Your task to perform on an android device: Open my contact list Image 0: 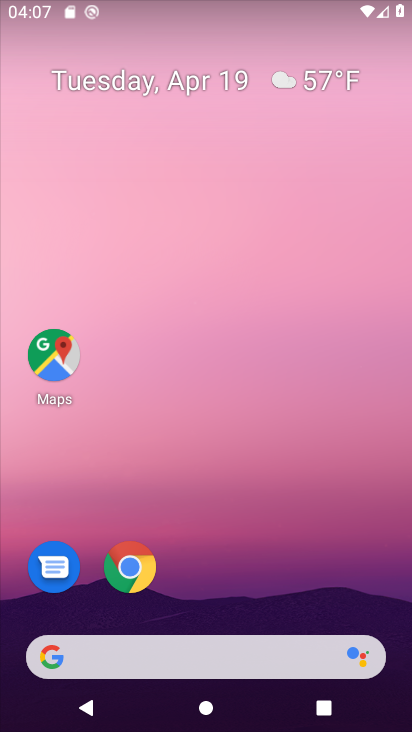
Step 0: drag from (365, 563) to (339, 209)
Your task to perform on an android device: Open my contact list Image 1: 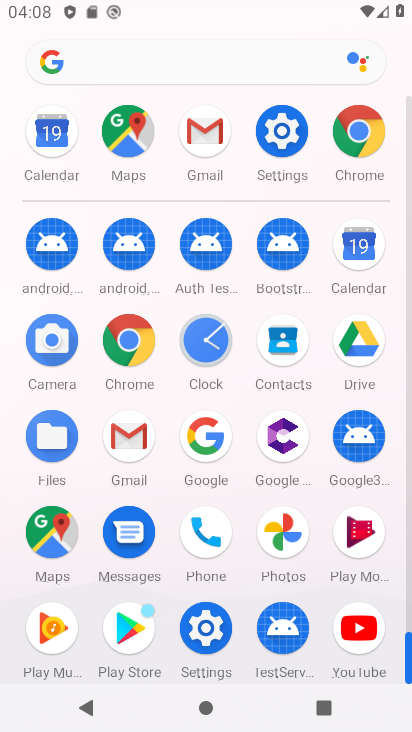
Step 1: click (275, 348)
Your task to perform on an android device: Open my contact list Image 2: 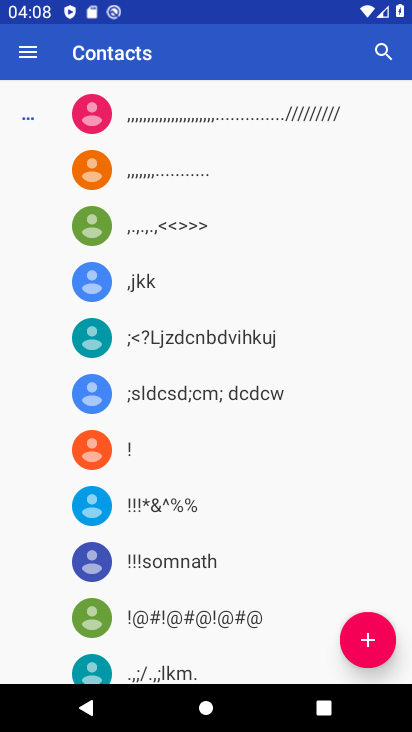
Step 2: task complete